Your task to perform on an android device: Go to network settings Image 0: 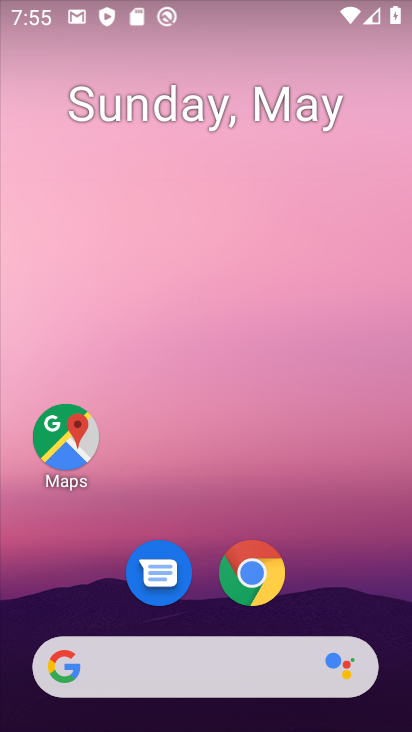
Step 0: drag from (314, 528) to (313, 0)
Your task to perform on an android device: Go to network settings Image 1: 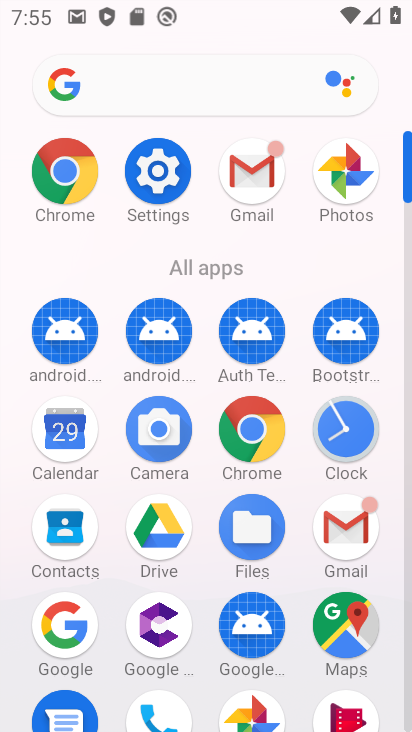
Step 1: click (142, 171)
Your task to perform on an android device: Go to network settings Image 2: 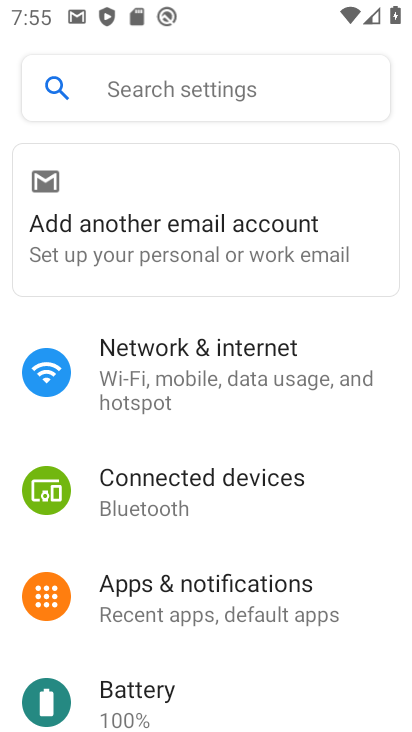
Step 2: click (269, 370)
Your task to perform on an android device: Go to network settings Image 3: 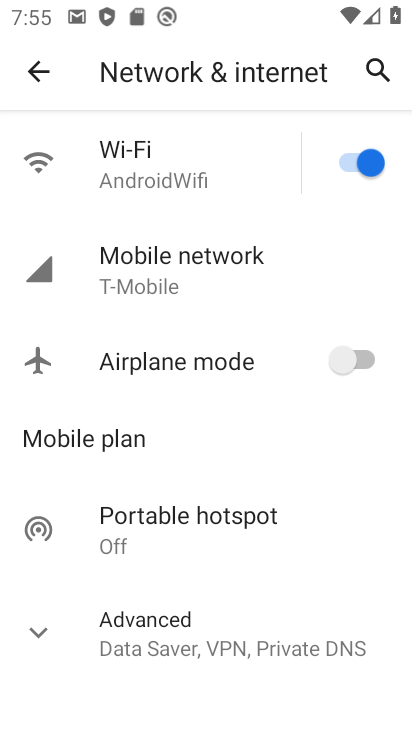
Step 3: task complete